Your task to perform on an android device: turn off location Image 0: 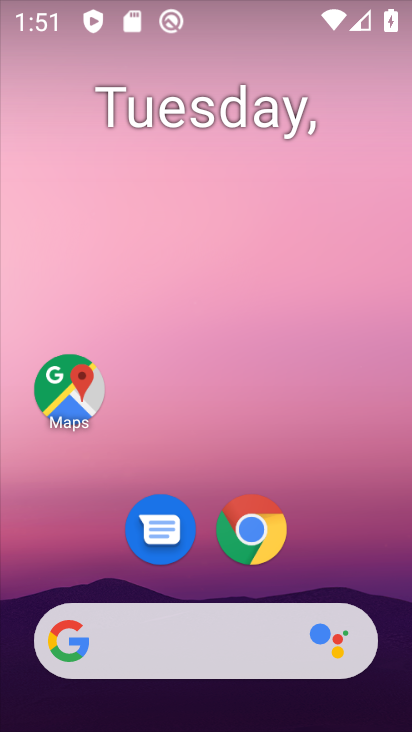
Step 0: drag from (394, 614) to (290, 96)
Your task to perform on an android device: turn off location Image 1: 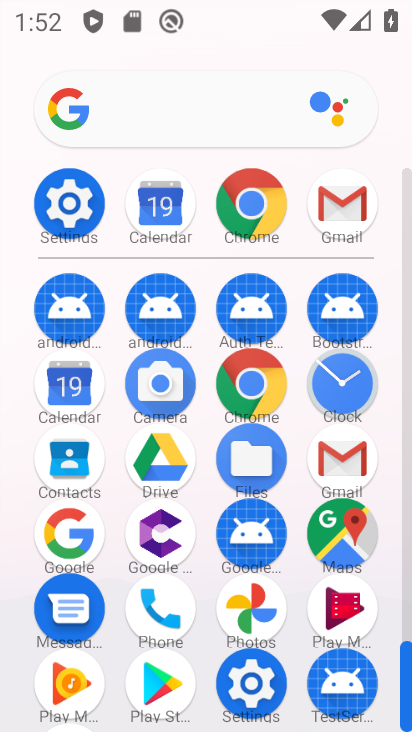
Step 1: click (56, 185)
Your task to perform on an android device: turn off location Image 2: 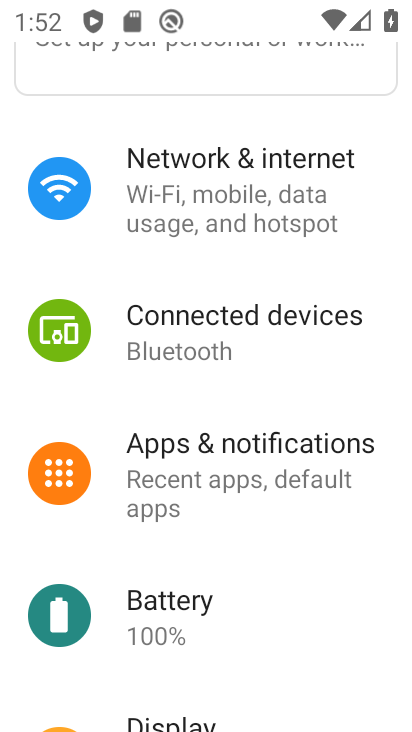
Step 2: drag from (202, 646) to (306, 94)
Your task to perform on an android device: turn off location Image 3: 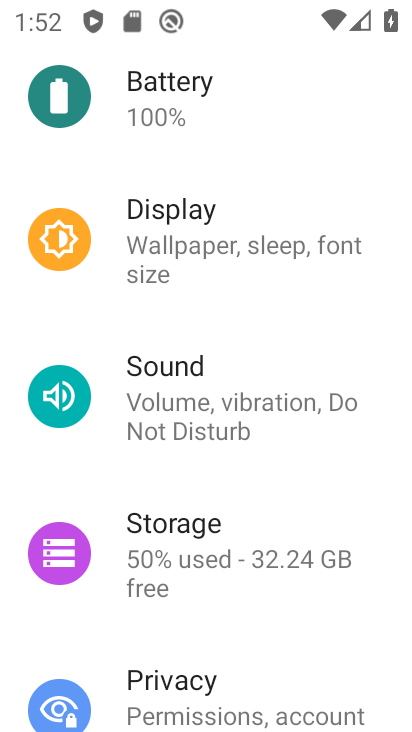
Step 3: drag from (168, 651) to (264, 138)
Your task to perform on an android device: turn off location Image 4: 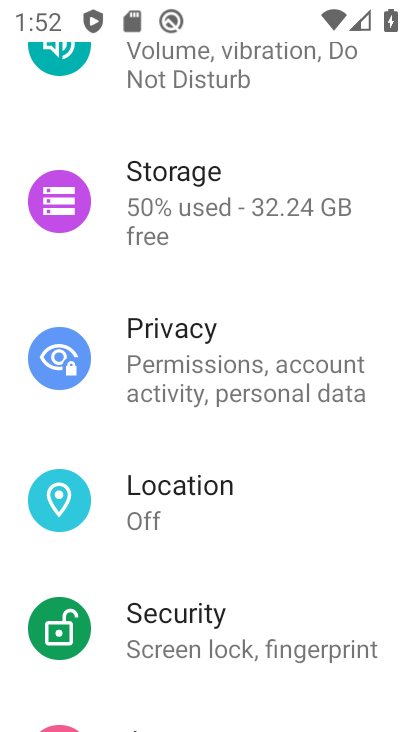
Step 4: click (222, 502)
Your task to perform on an android device: turn off location Image 5: 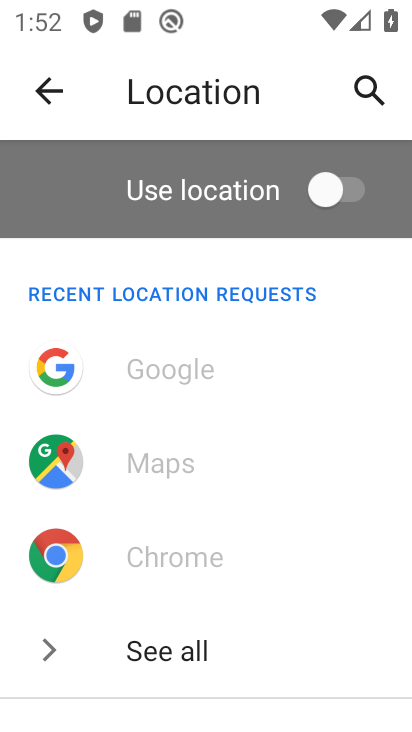
Step 5: task complete